Your task to perform on an android device: change alarm snooze length Image 0: 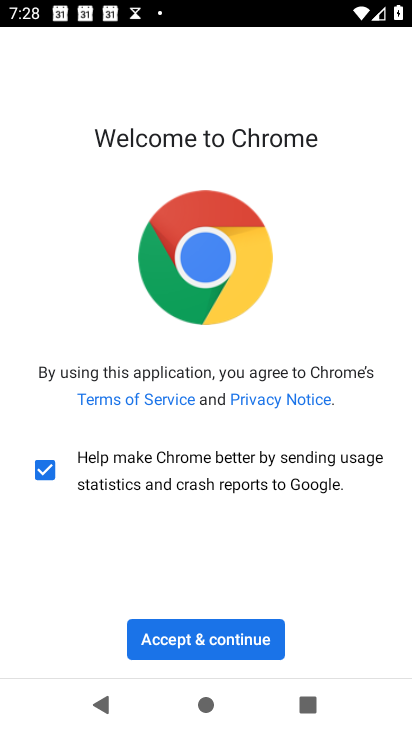
Step 0: press home button
Your task to perform on an android device: change alarm snooze length Image 1: 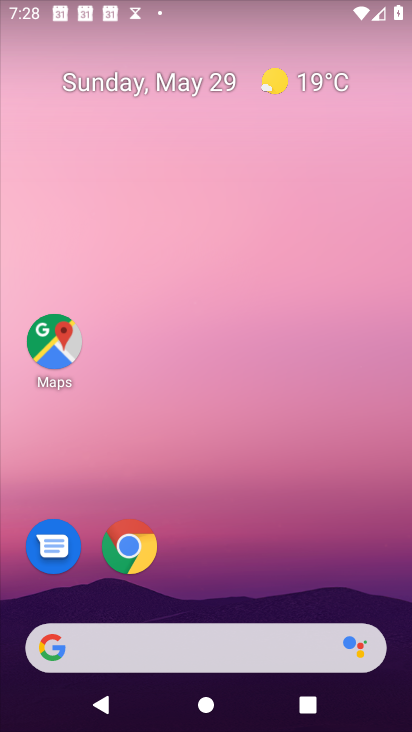
Step 1: drag from (213, 573) to (139, 10)
Your task to perform on an android device: change alarm snooze length Image 2: 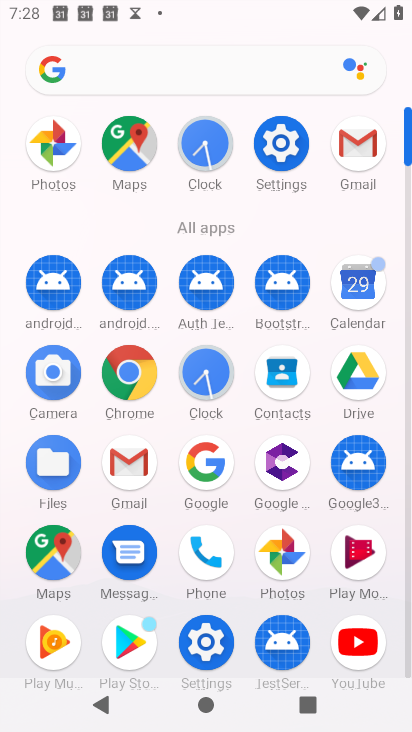
Step 2: click (210, 154)
Your task to perform on an android device: change alarm snooze length Image 3: 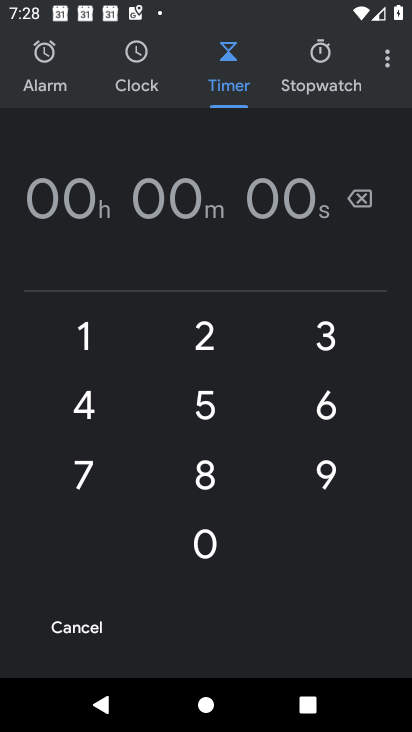
Step 3: click (378, 66)
Your task to perform on an android device: change alarm snooze length Image 4: 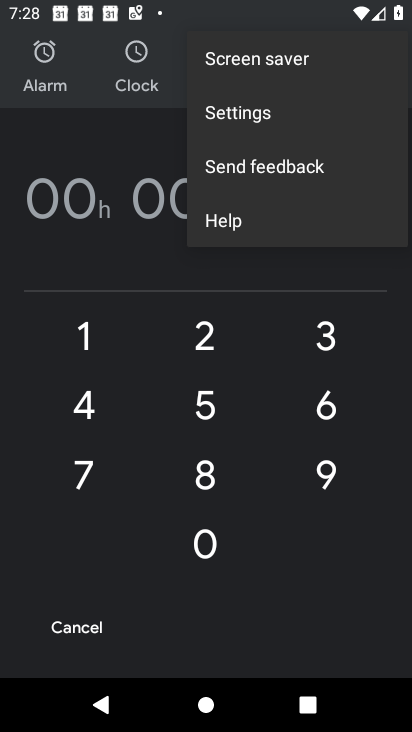
Step 4: click (309, 111)
Your task to perform on an android device: change alarm snooze length Image 5: 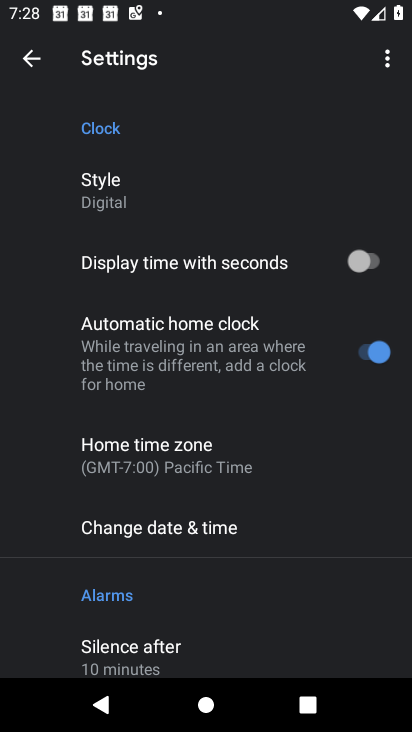
Step 5: drag from (180, 628) to (192, 364)
Your task to perform on an android device: change alarm snooze length Image 6: 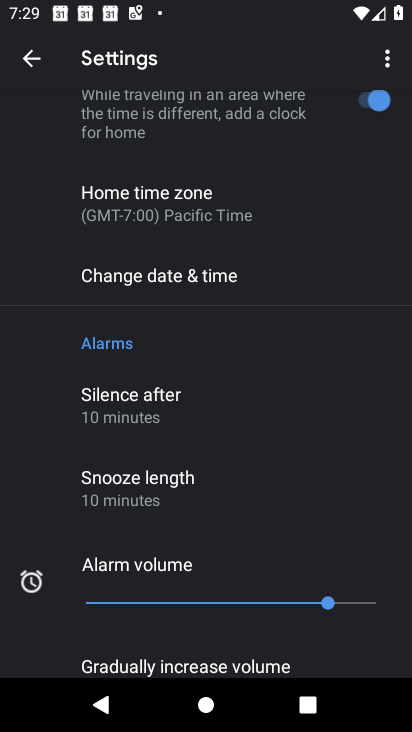
Step 6: click (159, 490)
Your task to perform on an android device: change alarm snooze length Image 7: 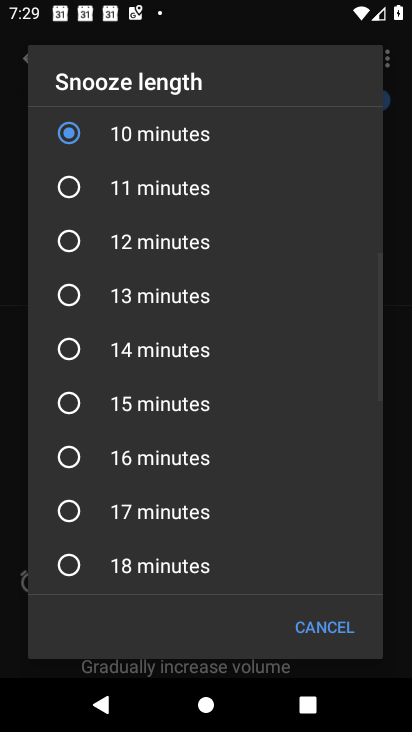
Step 7: click (75, 205)
Your task to perform on an android device: change alarm snooze length Image 8: 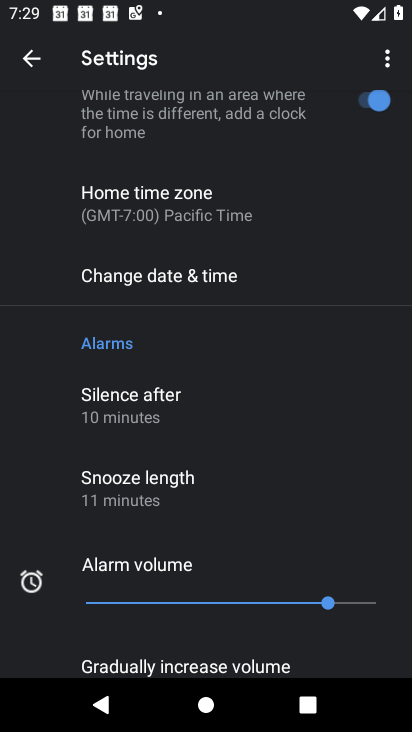
Step 8: task complete